Your task to perform on an android device: set default search engine in the chrome app Image 0: 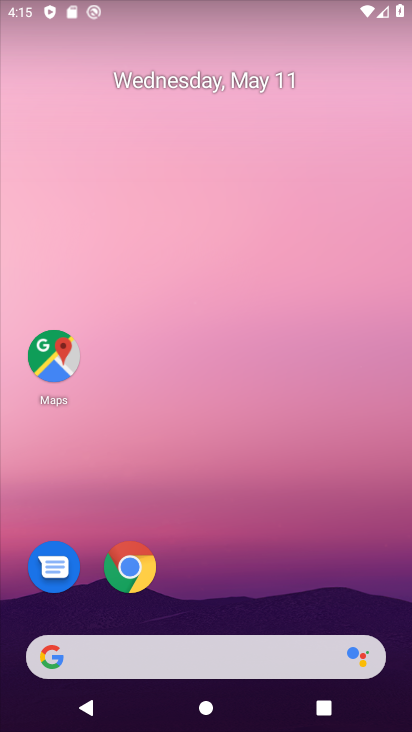
Step 0: click (217, 590)
Your task to perform on an android device: set default search engine in the chrome app Image 1: 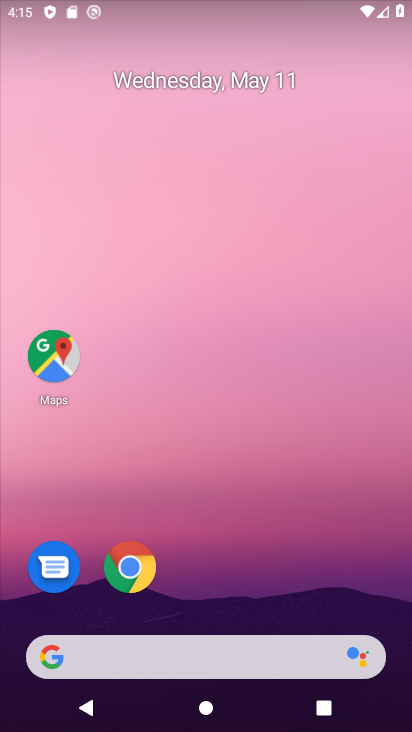
Step 1: click (146, 573)
Your task to perform on an android device: set default search engine in the chrome app Image 2: 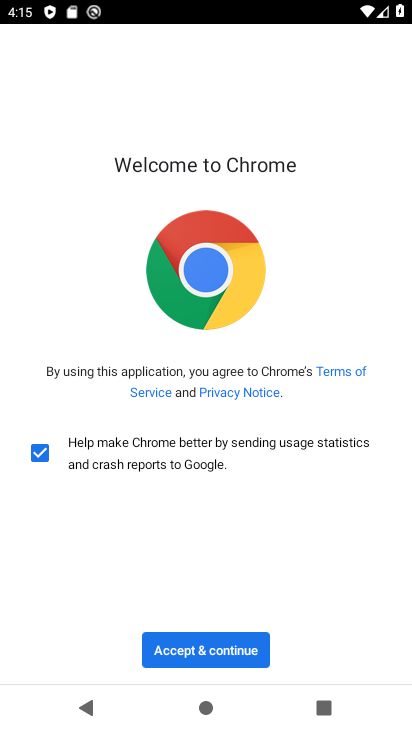
Step 2: click (233, 642)
Your task to perform on an android device: set default search engine in the chrome app Image 3: 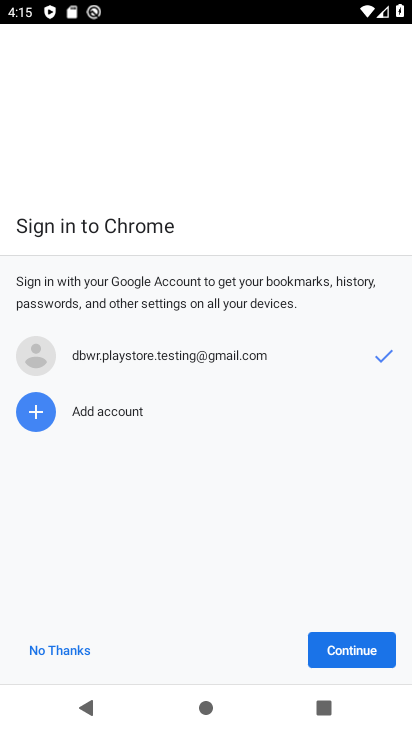
Step 3: click (326, 651)
Your task to perform on an android device: set default search engine in the chrome app Image 4: 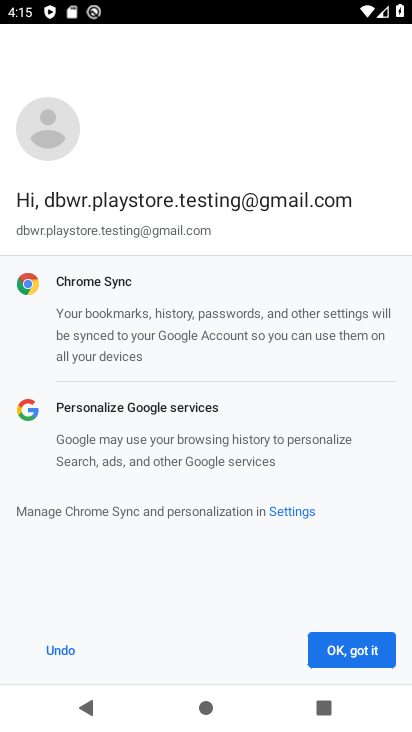
Step 4: click (343, 646)
Your task to perform on an android device: set default search engine in the chrome app Image 5: 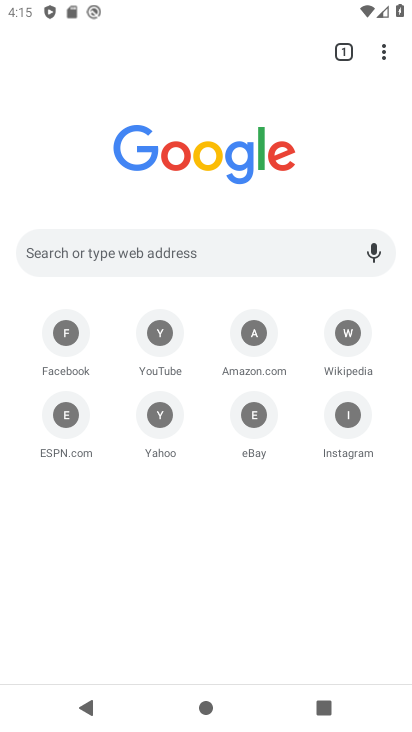
Step 5: click (382, 50)
Your task to perform on an android device: set default search engine in the chrome app Image 6: 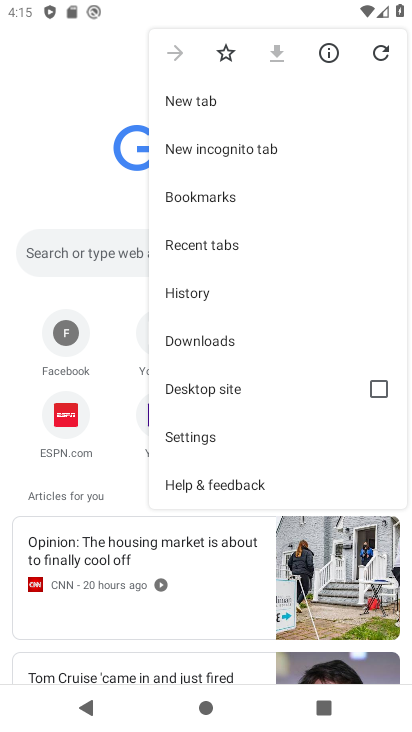
Step 6: click (206, 442)
Your task to perform on an android device: set default search engine in the chrome app Image 7: 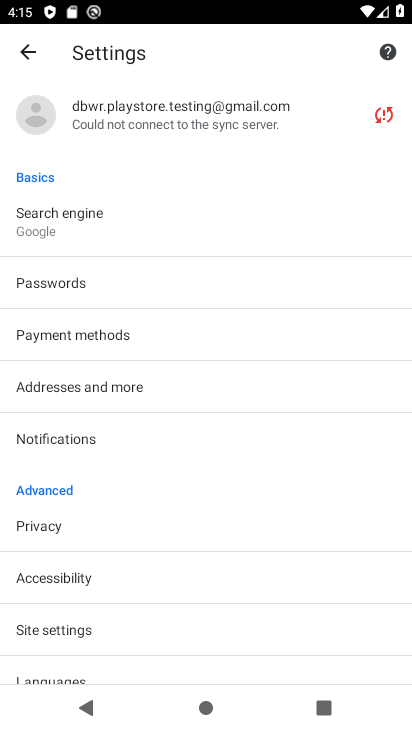
Step 7: click (132, 235)
Your task to perform on an android device: set default search engine in the chrome app Image 8: 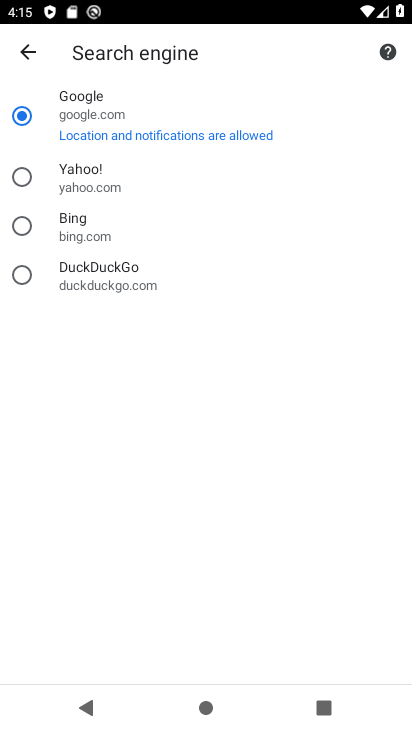
Step 8: click (64, 227)
Your task to perform on an android device: set default search engine in the chrome app Image 9: 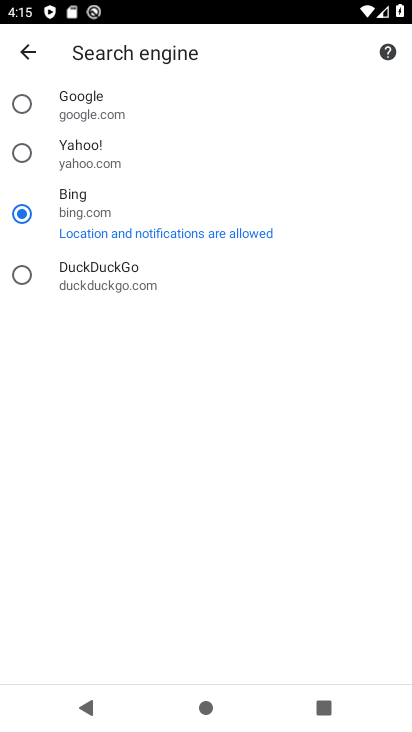
Step 9: task complete